Your task to perform on an android device: Open eBay Image 0: 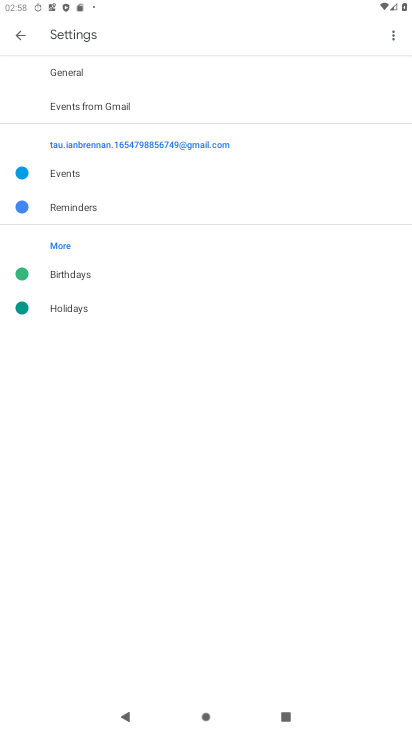
Step 0: press home button
Your task to perform on an android device: Open eBay Image 1: 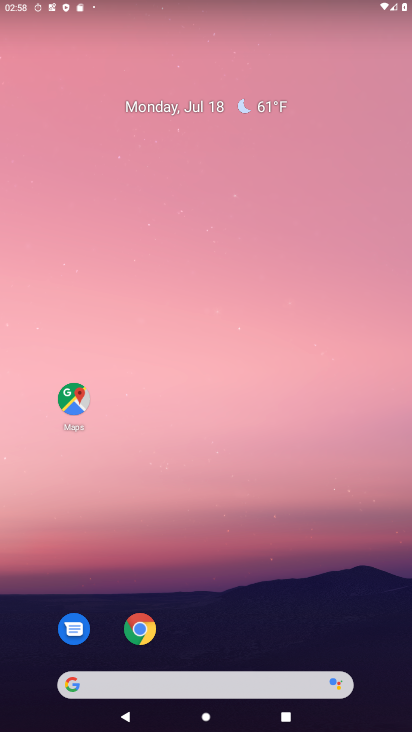
Step 1: click (141, 631)
Your task to perform on an android device: Open eBay Image 2: 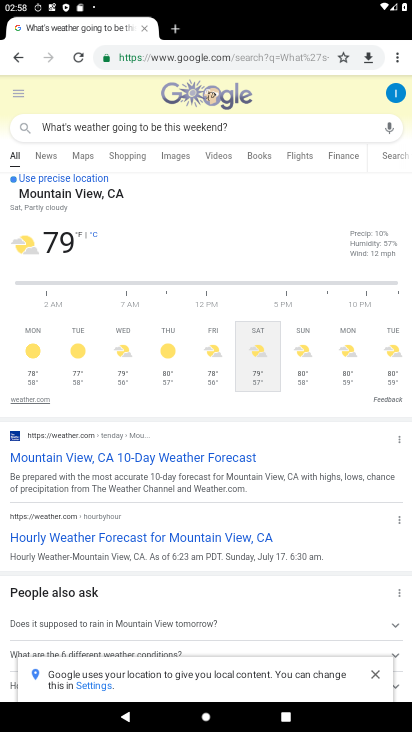
Step 2: click (307, 57)
Your task to perform on an android device: Open eBay Image 3: 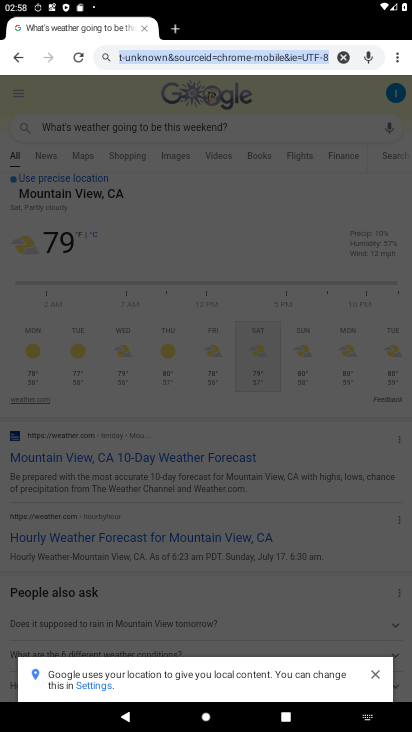
Step 3: type "eBay"
Your task to perform on an android device: Open eBay Image 4: 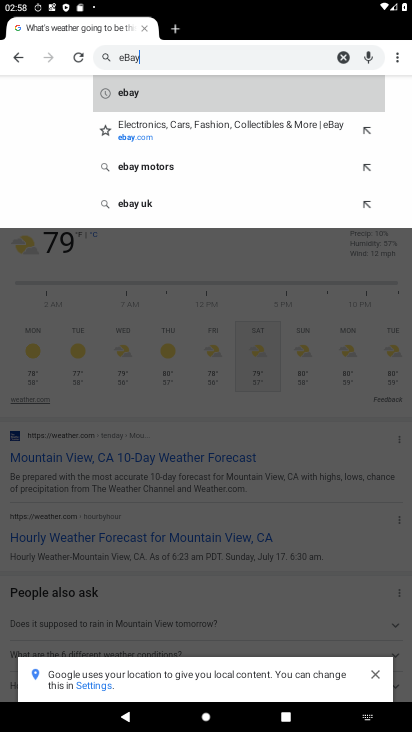
Step 4: click (150, 97)
Your task to perform on an android device: Open eBay Image 5: 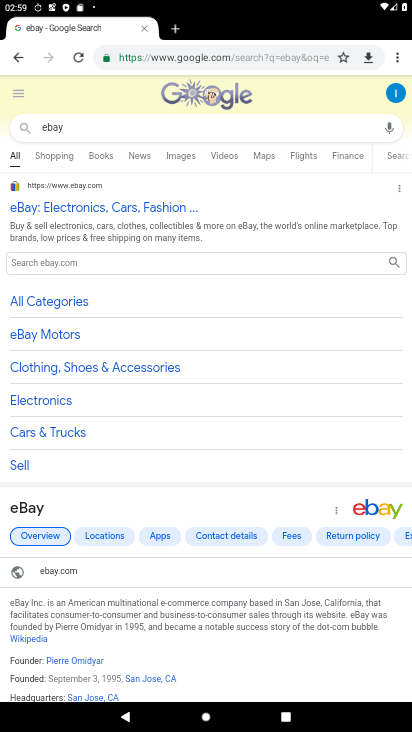
Step 5: click (145, 216)
Your task to perform on an android device: Open eBay Image 6: 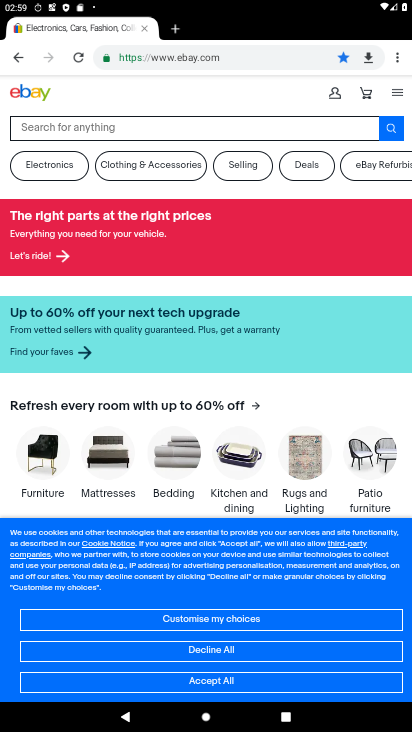
Step 6: task complete